Your task to perform on an android device: What's the weather going to be this weekend? Image 0: 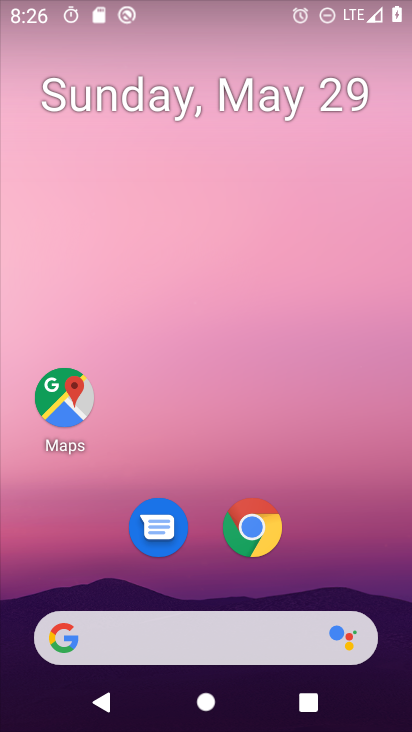
Step 0: drag from (397, 625) to (319, 78)
Your task to perform on an android device: What's the weather going to be this weekend? Image 1: 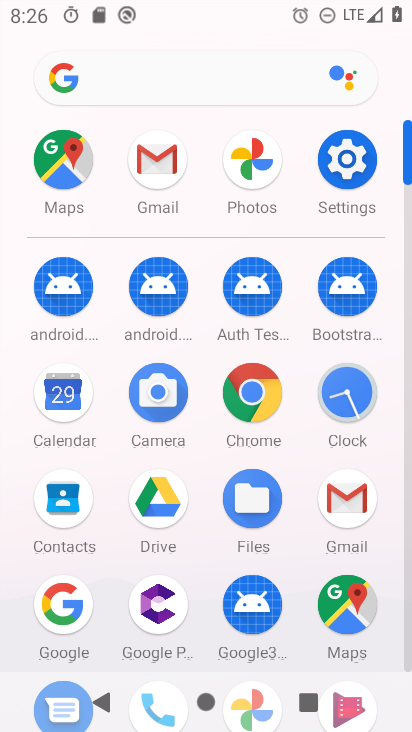
Step 1: click (55, 613)
Your task to perform on an android device: What's the weather going to be this weekend? Image 2: 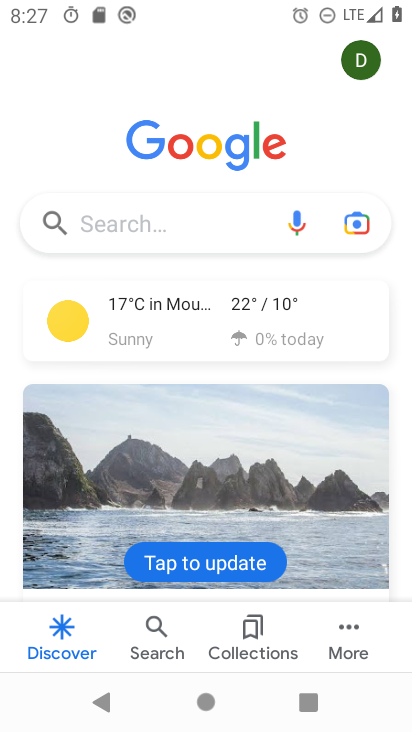
Step 2: click (115, 250)
Your task to perform on an android device: What's the weather going to be this weekend? Image 3: 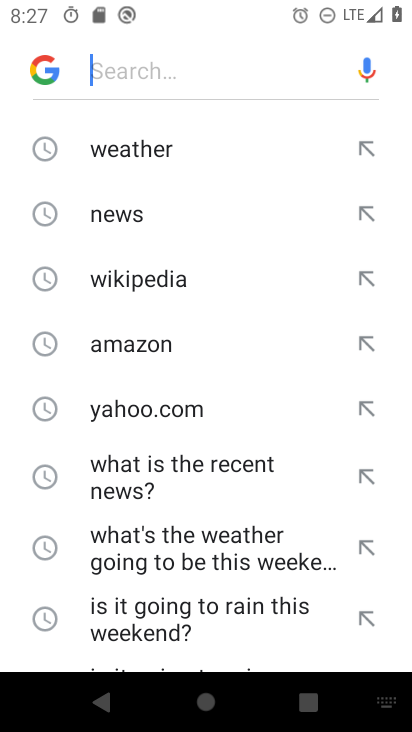
Step 3: click (197, 550)
Your task to perform on an android device: What's the weather going to be this weekend? Image 4: 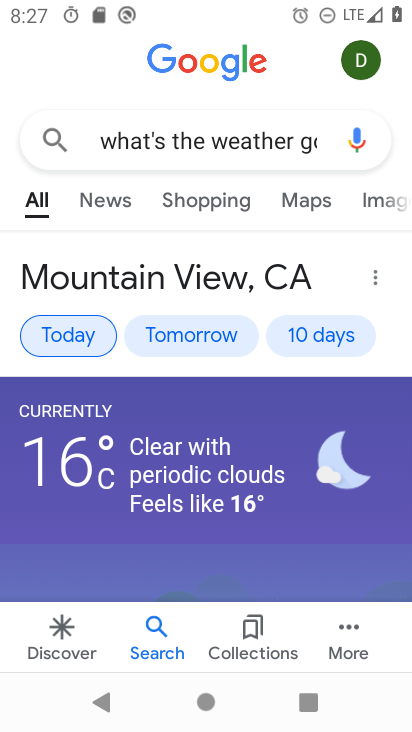
Step 4: task complete